Your task to perform on an android device: Search for the best fantasy books on Goodreads. Image 0: 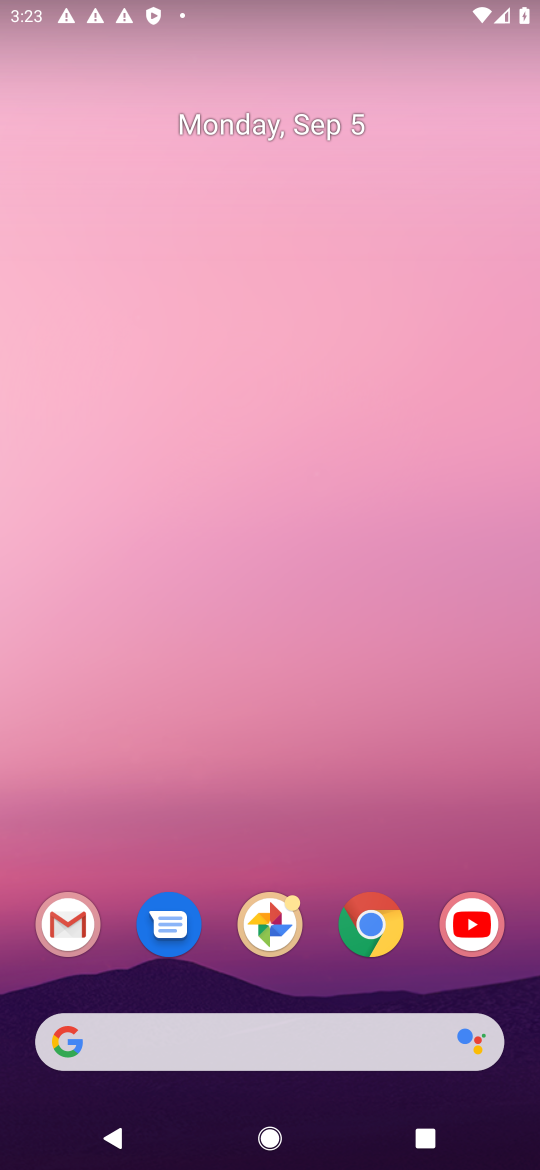
Step 0: drag from (209, 1029) to (253, 81)
Your task to perform on an android device: Search for the best fantasy books on Goodreads. Image 1: 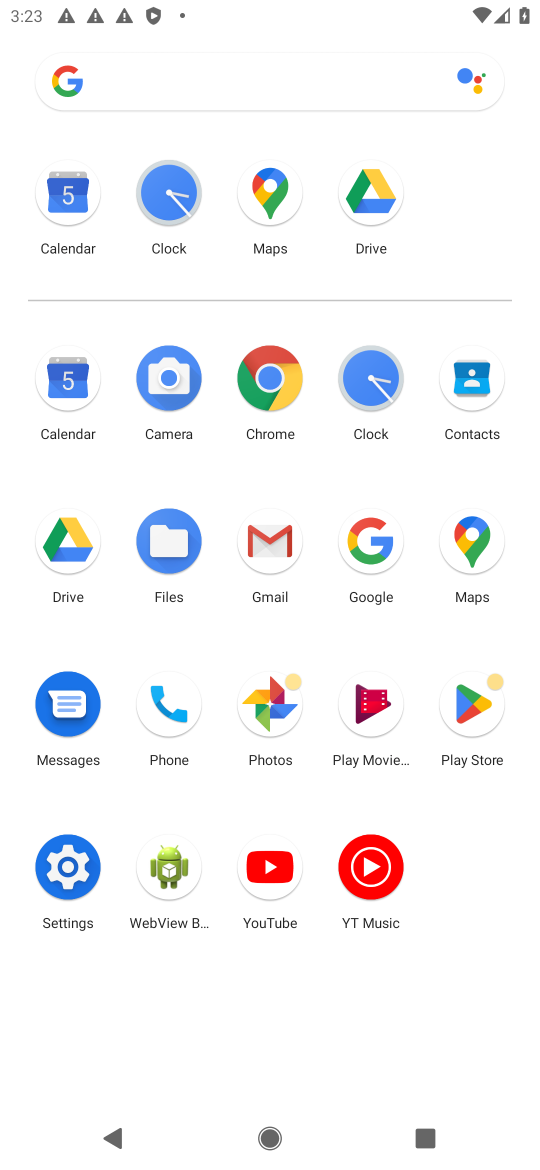
Step 1: click (266, 432)
Your task to perform on an android device: Search for the best fantasy books on Goodreads. Image 2: 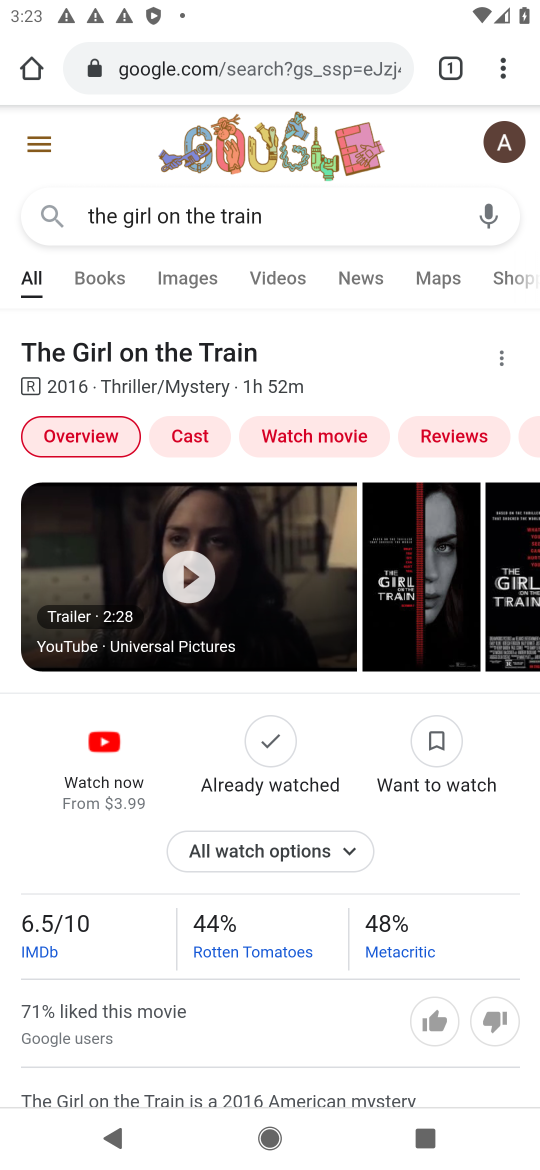
Step 2: click (358, 66)
Your task to perform on an android device: Search for the best fantasy books on Goodreads. Image 3: 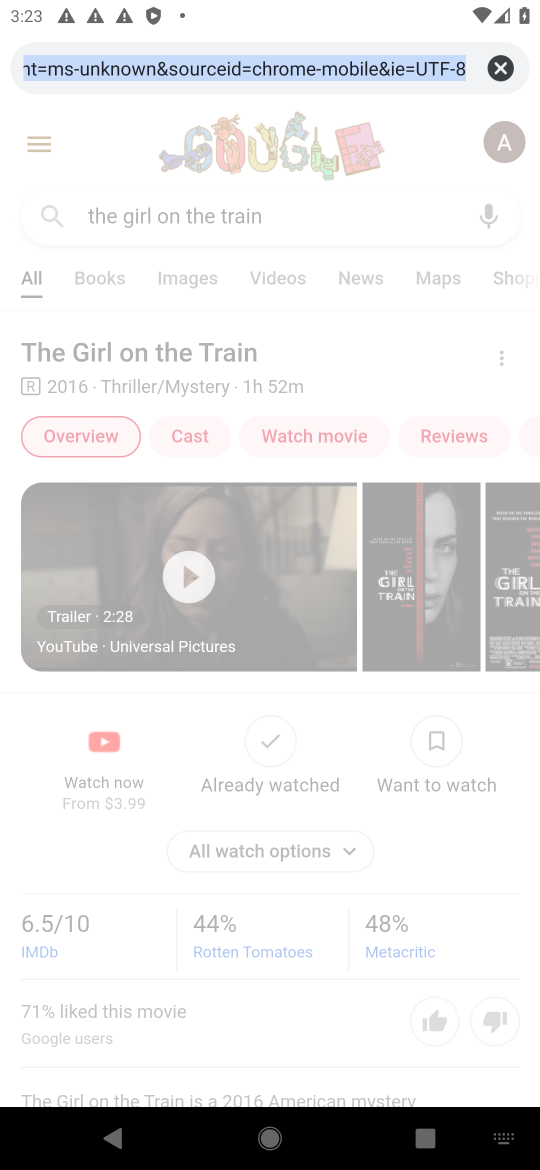
Step 3: type "goodreads"
Your task to perform on an android device: Search for the best fantasy books on Goodreads. Image 4: 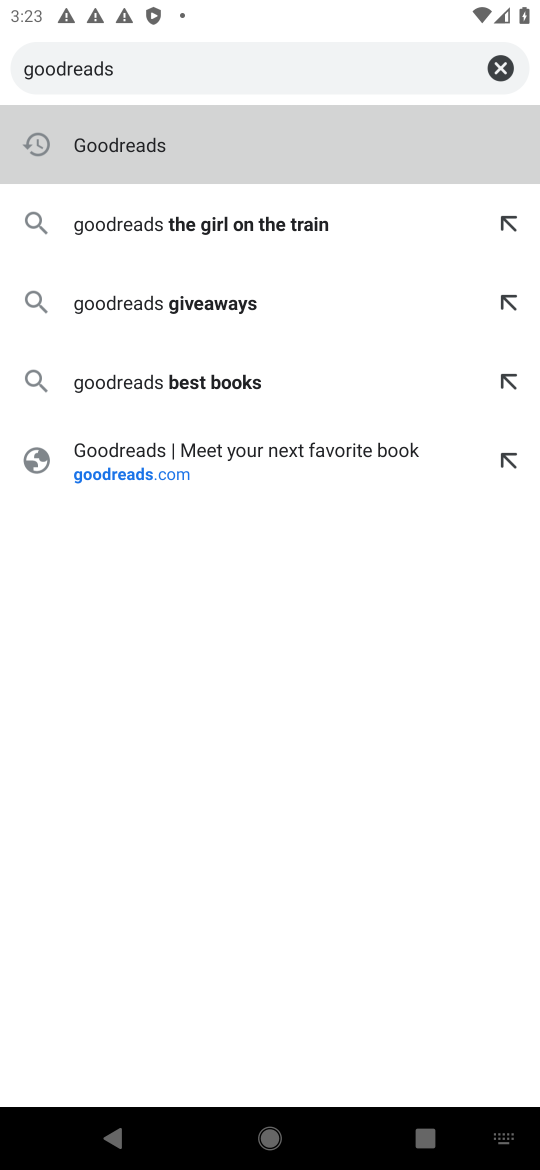
Step 4: click (315, 165)
Your task to perform on an android device: Search for the best fantasy books on Goodreads. Image 5: 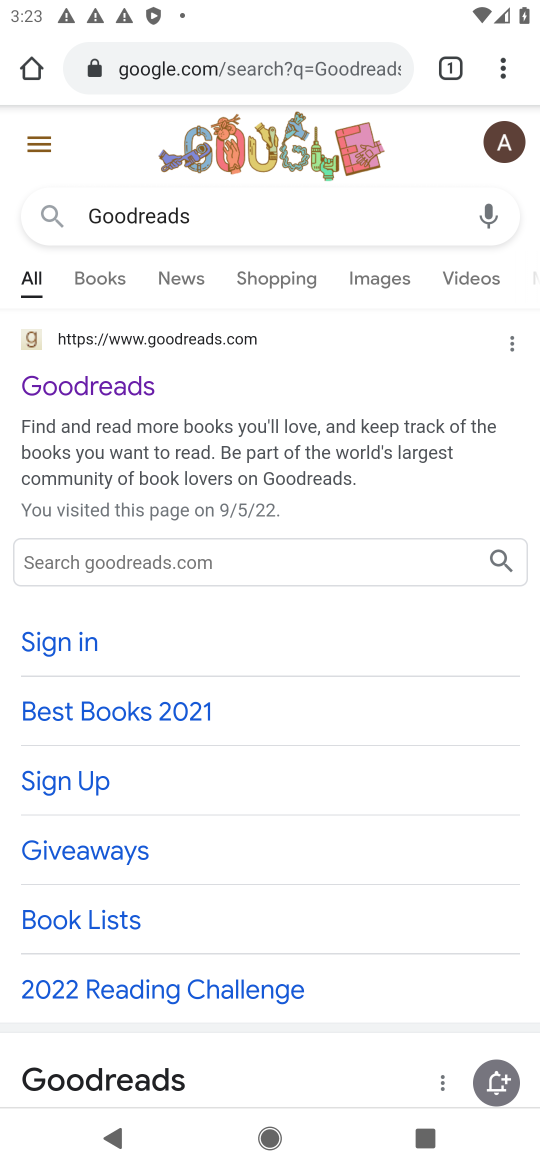
Step 5: click (121, 380)
Your task to perform on an android device: Search for the best fantasy books on Goodreads. Image 6: 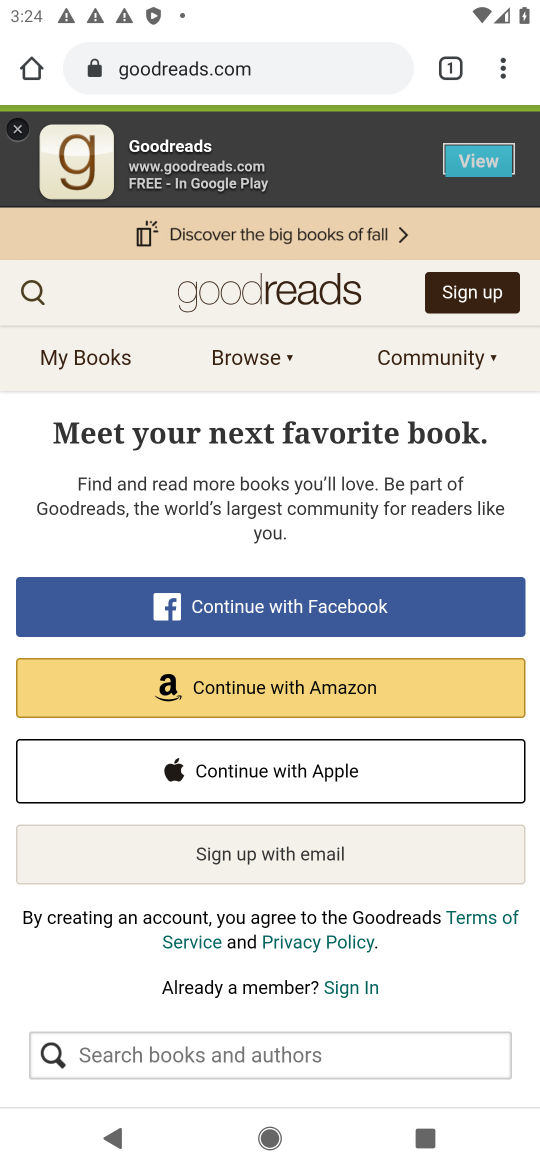
Step 6: click (23, 290)
Your task to perform on an android device: Search for the best fantasy books on Goodreads. Image 7: 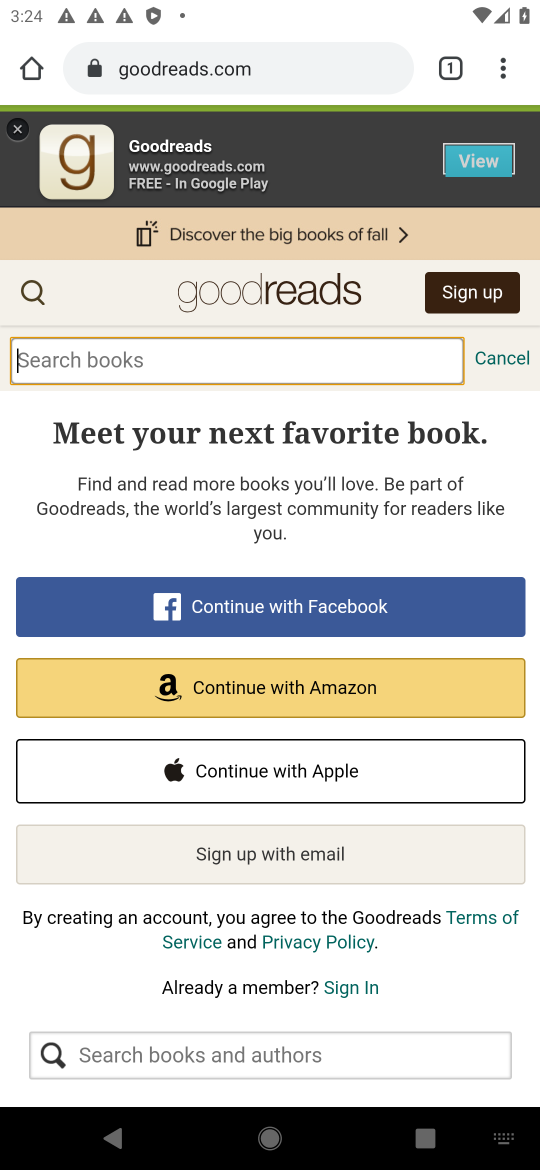
Step 7: type "best fantacy books"
Your task to perform on an android device: Search for the best fantasy books on Goodreads. Image 8: 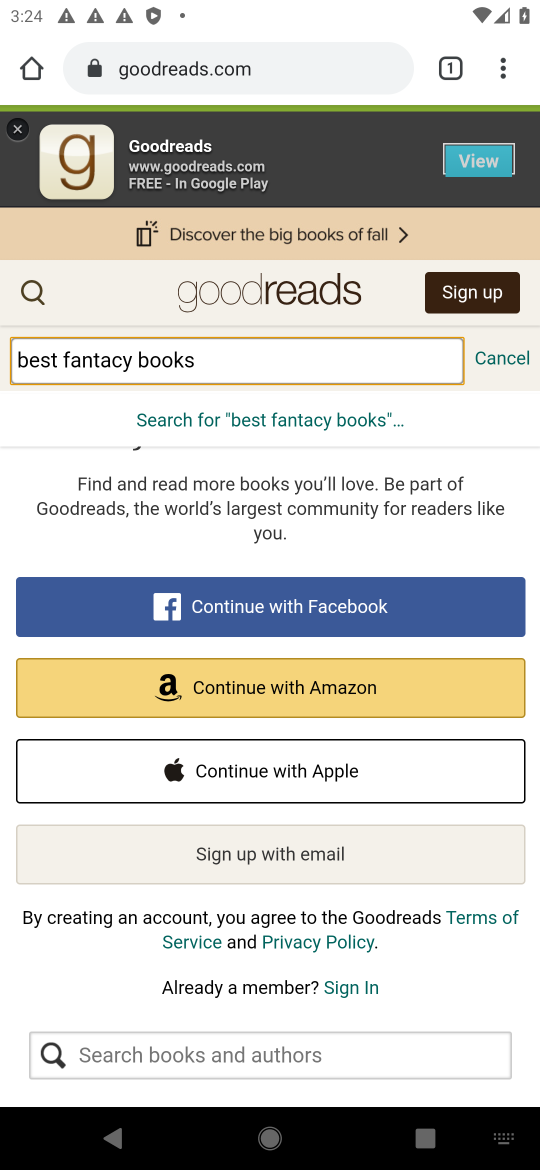
Step 8: task complete